Your task to perform on an android device: manage bookmarks in the chrome app Image 0: 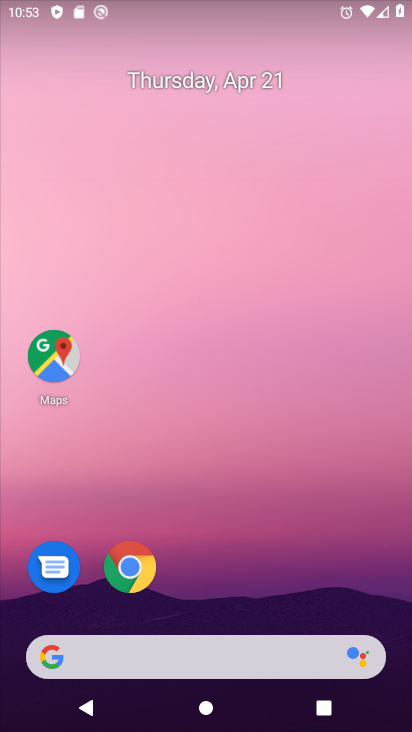
Step 0: click (142, 572)
Your task to perform on an android device: manage bookmarks in the chrome app Image 1: 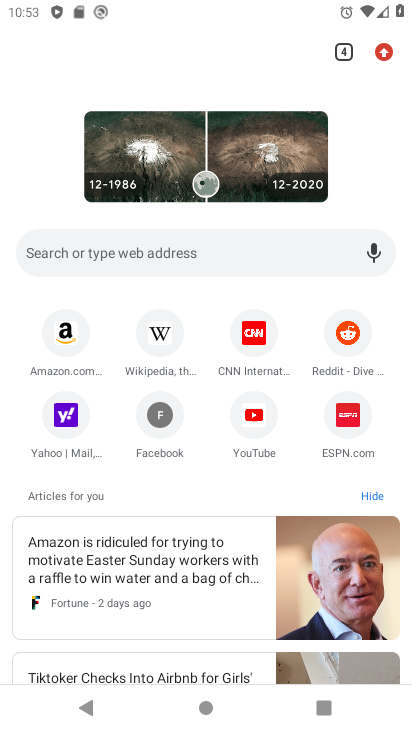
Step 1: click (381, 52)
Your task to perform on an android device: manage bookmarks in the chrome app Image 2: 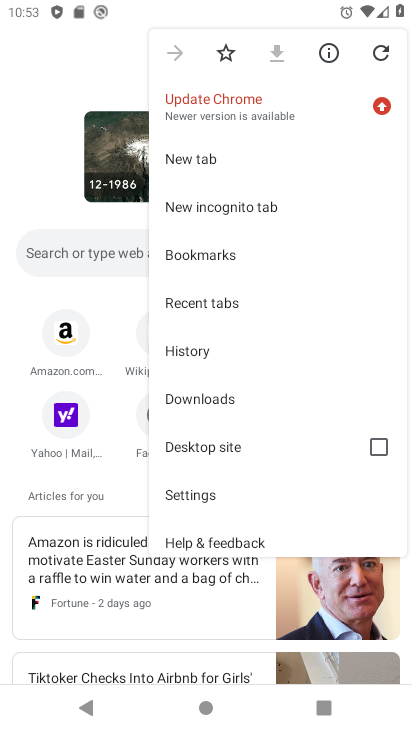
Step 2: click (215, 259)
Your task to perform on an android device: manage bookmarks in the chrome app Image 3: 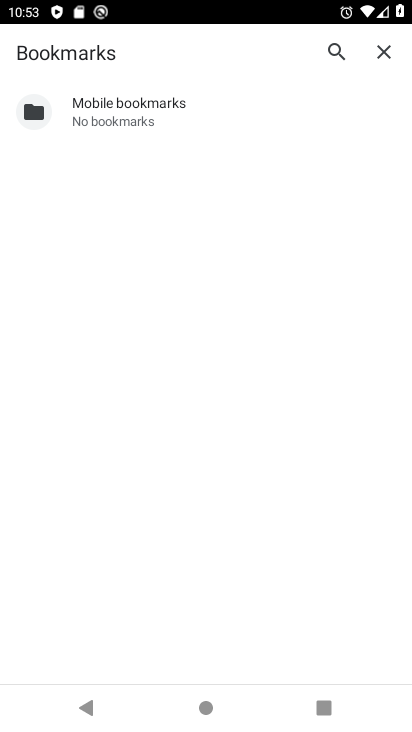
Step 3: task complete